Your task to perform on an android device: change notification settings in the gmail app Image 0: 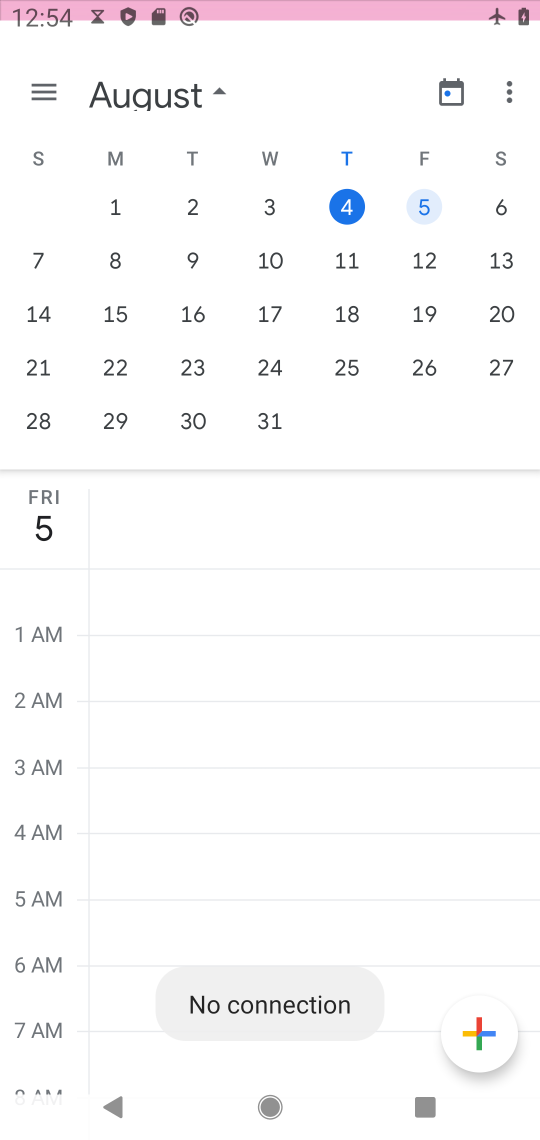
Step 0: press home button
Your task to perform on an android device: change notification settings in the gmail app Image 1: 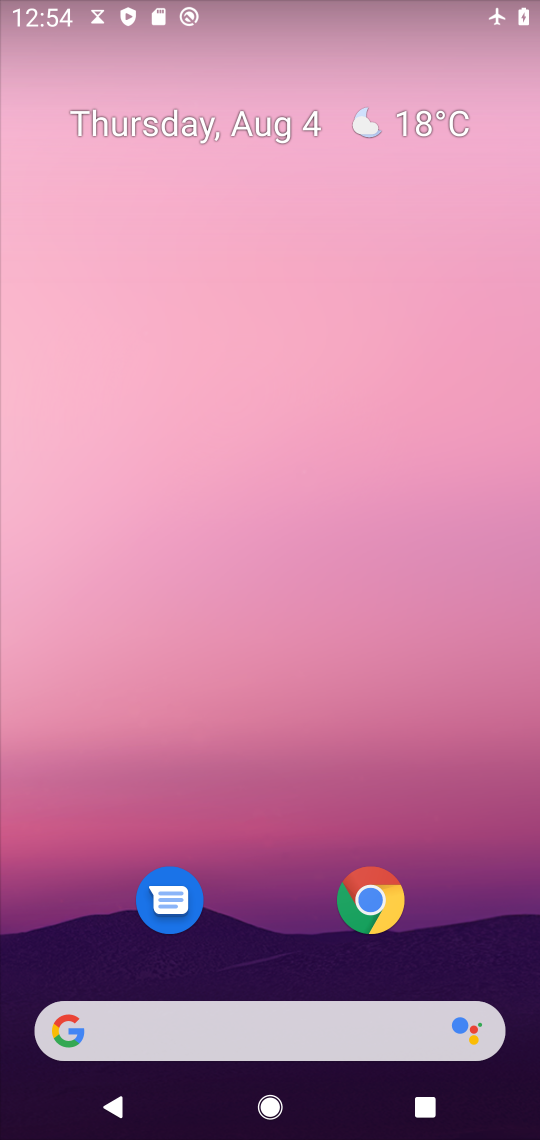
Step 1: drag from (250, 958) to (155, 155)
Your task to perform on an android device: change notification settings in the gmail app Image 2: 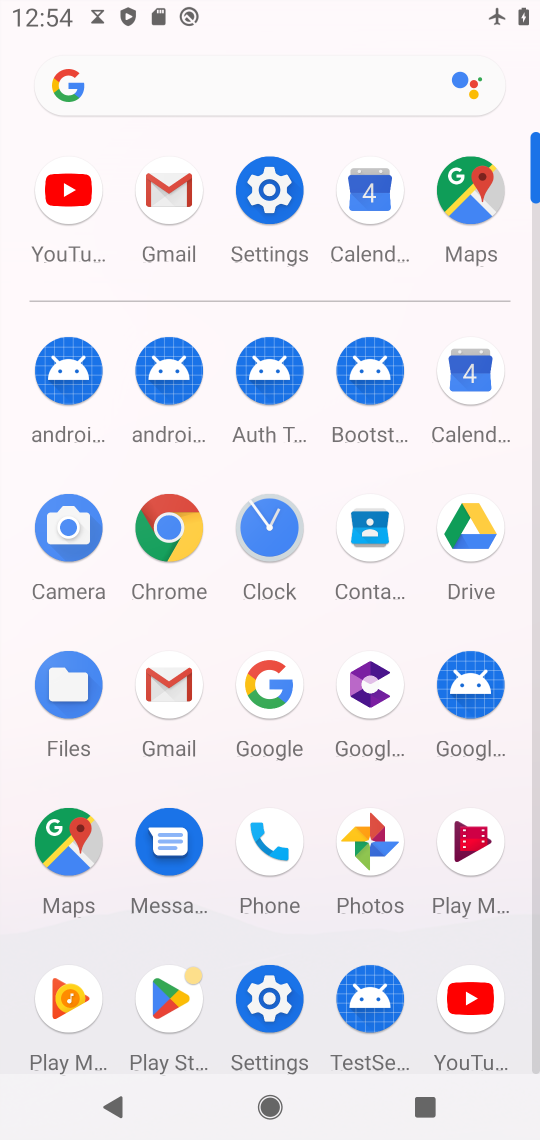
Step 2: click (170, 197)
Your task to perform on an android device: change notification settings in the gmail app Image 3: 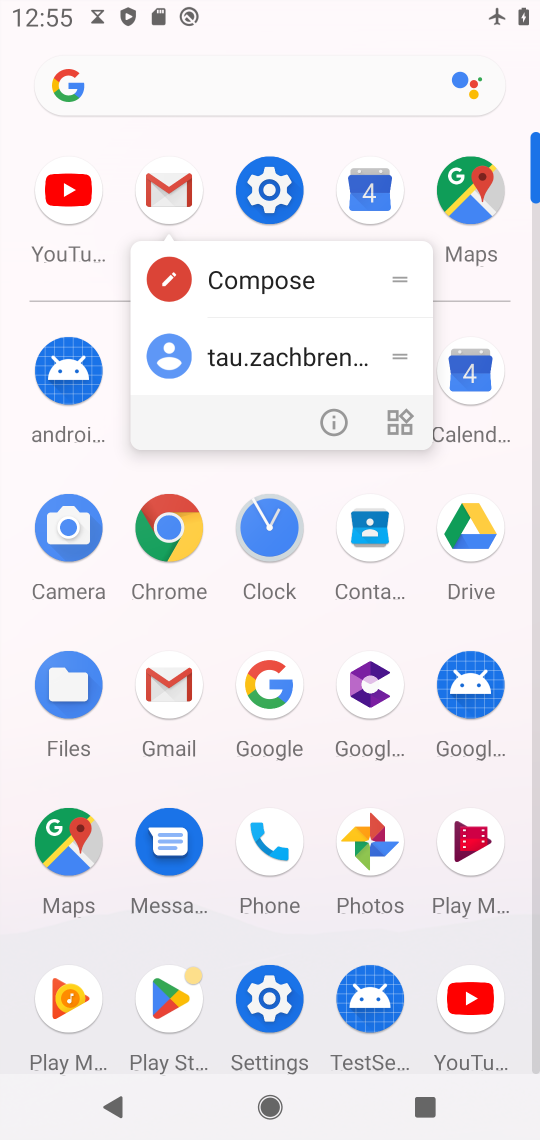
Step 3: click (170, 197)
Your task to perform on an android device: change notification settings in the gmail app Image 4: 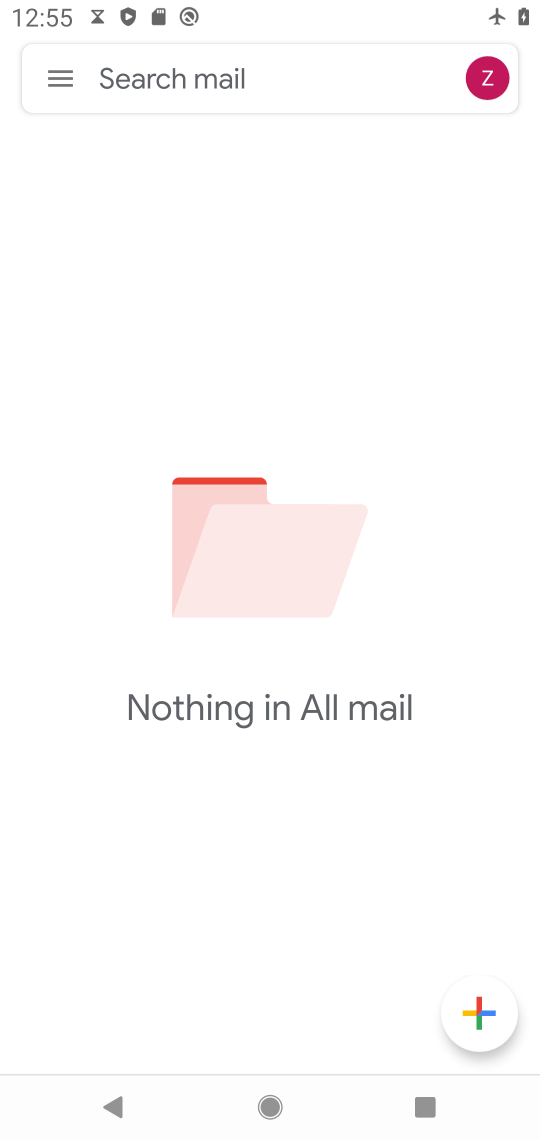
Step 4: click (52, 81)
Your task to perform on an android device: change notification settings in the gmail app Image 5: 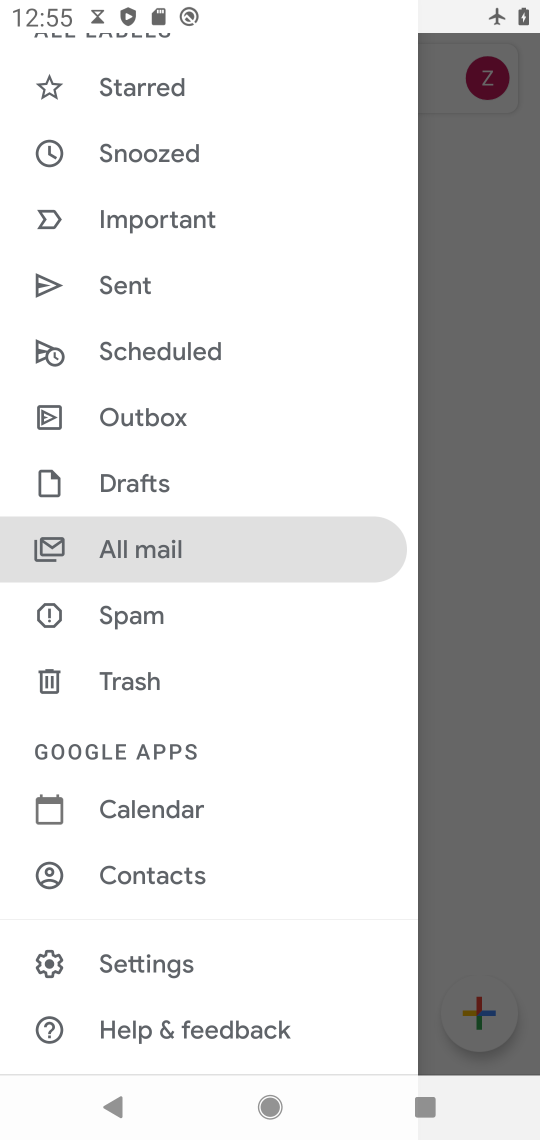
Step 5: click (119, 967)
Your task to perform on an android device: change notification settings in the gmail app Image 6: 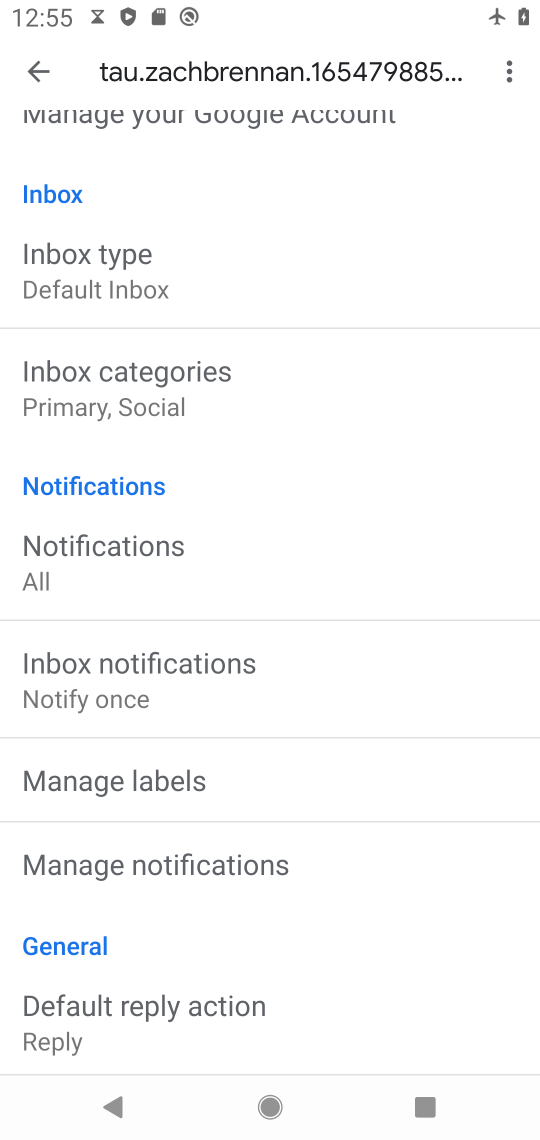
Step 6: click (167, 866)
Your task to perform on an android device: change notification settings in the gmail app Image 7: 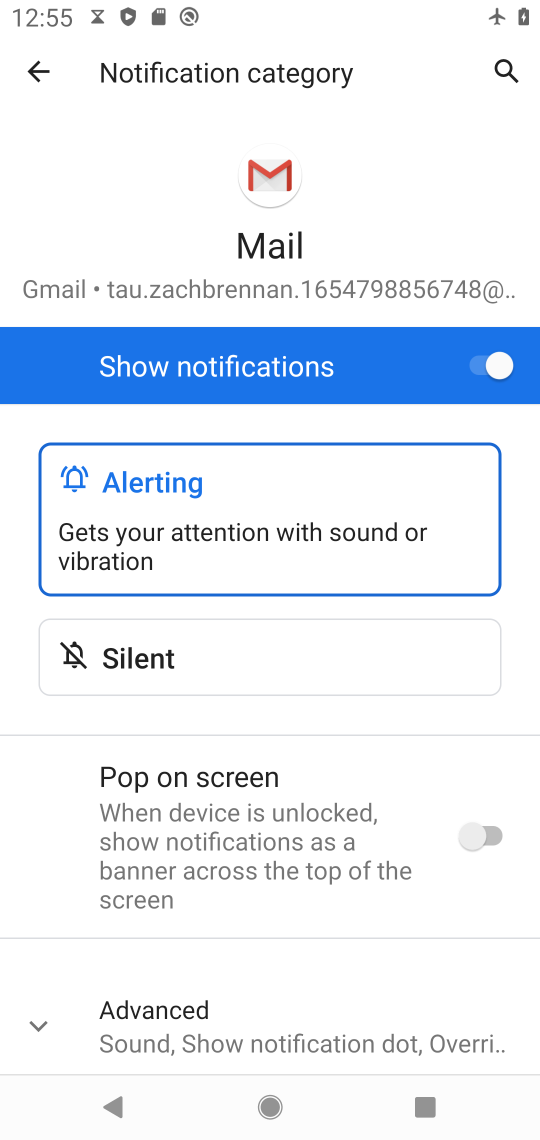
Step 7: click (501, 366)
Your task to perform on an android device: change notification settings in the gmail app Image 8: 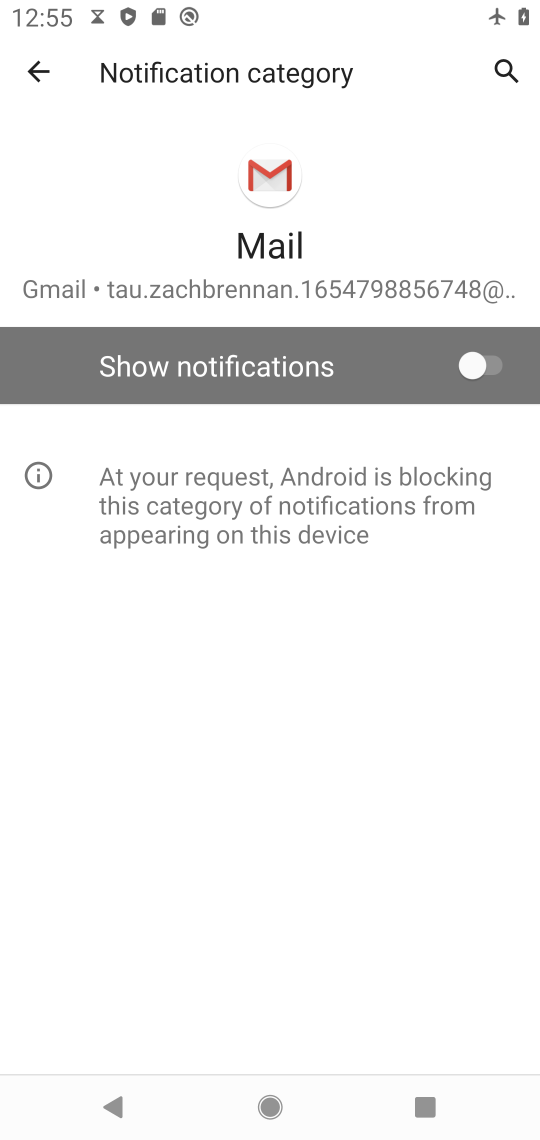
Step 8: task complete